Your task to perform on an android device: Go to sound settings Image 0: 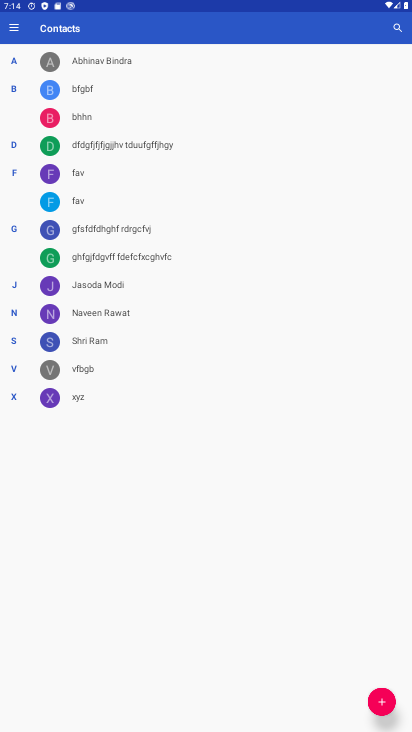
Step 0: press home button
Your task to perform on an android device: Go to sound settings Image 1: 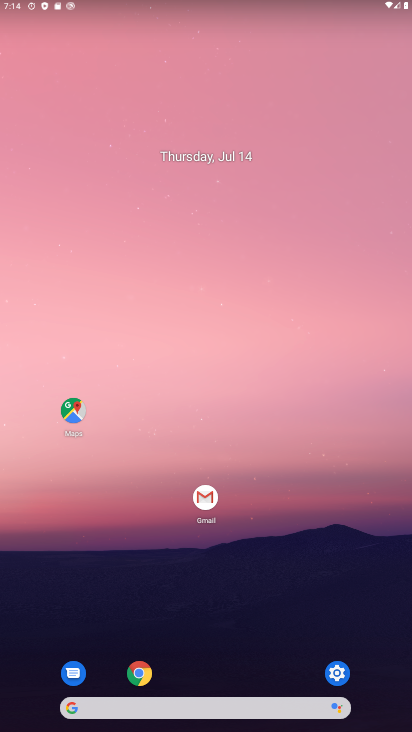
Step 1: click (346, 664)
Your task to perform on an android device: Go to sound settings Image 2: 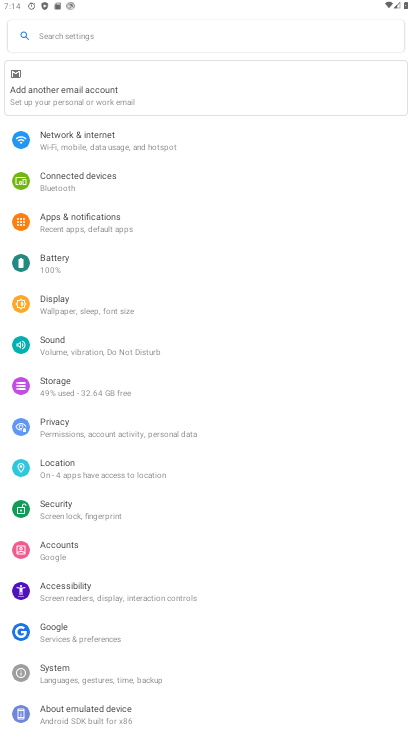
Step 2: click (60, 326)
Your task to perform on an android device: Go to sound settings Image 3: 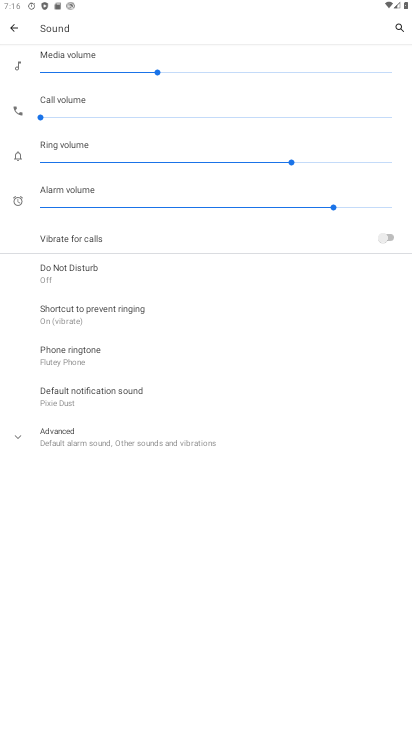
Step 3: task complete